Your task to perform on an android device: toggle notification dots Image 0: 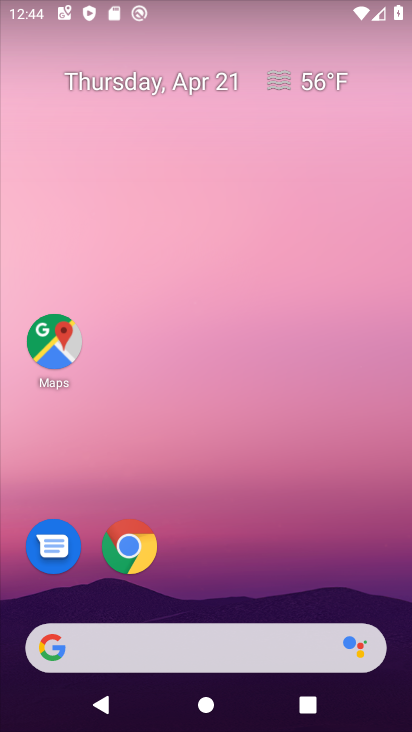
Step 0: drag from (204, 593) to (350, 110)
Your task to perform on an android device: toggle notification dots Image 1: 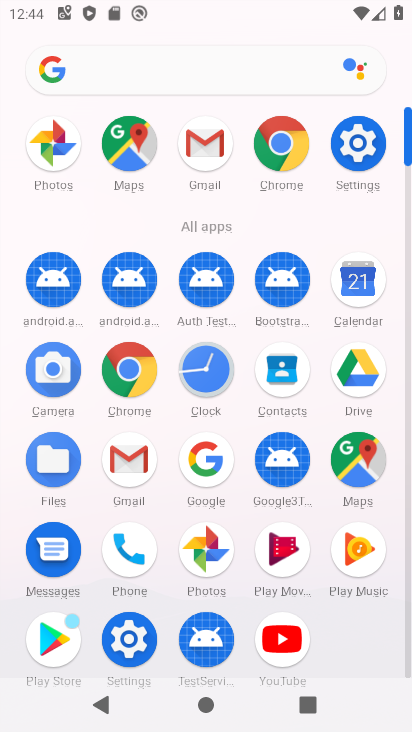
Step 1: click (364, 157)
Your task to perform on an android device: toggle notification dots Image 2: 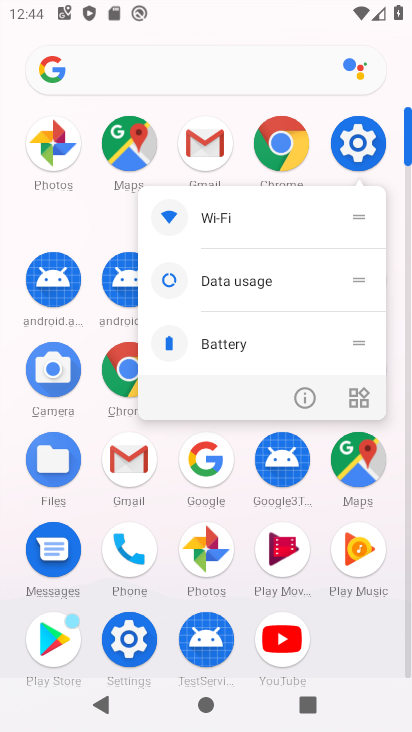
Step 2: click (364, 151)
Your task to perform on an android device: toggle notification dots Image 3: 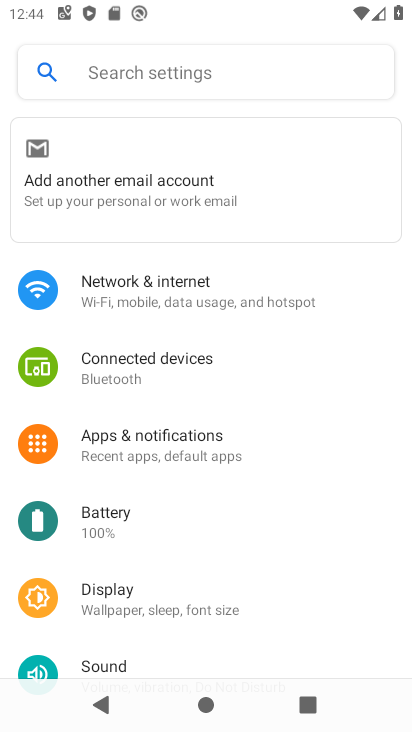
Step 3: click (180, 439)
Your task to perform on an android device: toggle notification dots Image 4: 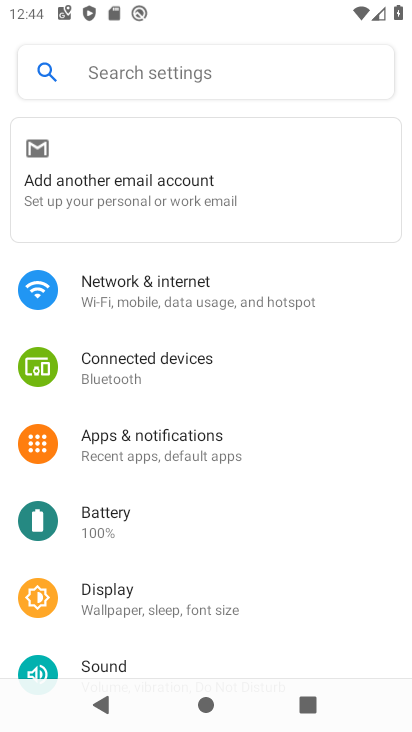
Step 4: click (180, 435)
Your task to perform on an android device: toggle notification dots Image 5: 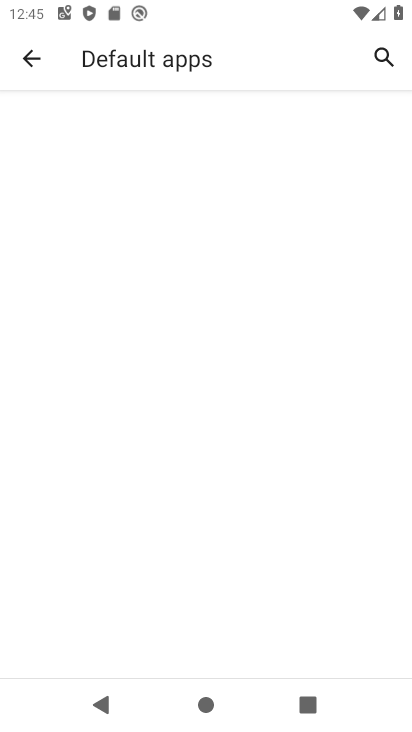
Step 5: click (160, 392)
Your task to perform on an android device: toggle notification dots Image 6: 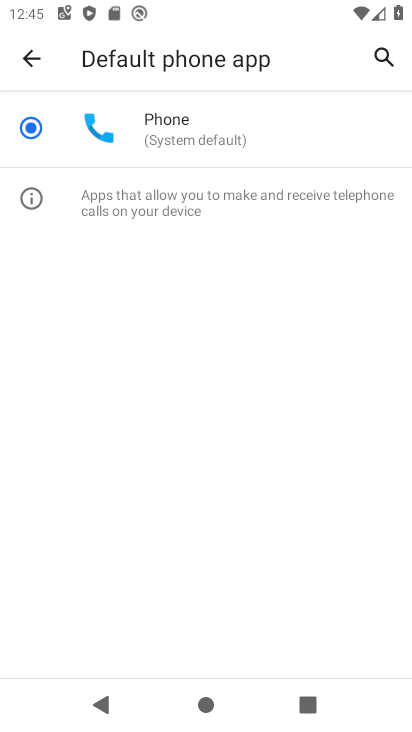
Step 6: click (35, 49)
Your task to perform on an android device: toggle notification dots Image 7: 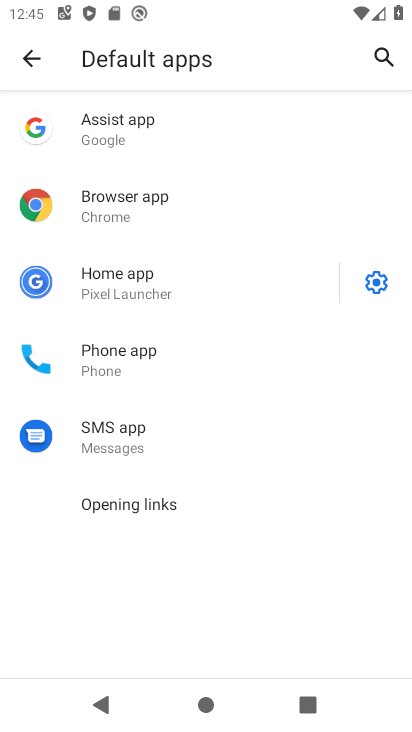
Step 7: click (35, 50)
Your task to perform on an android device: toggle notification dots Image 8: 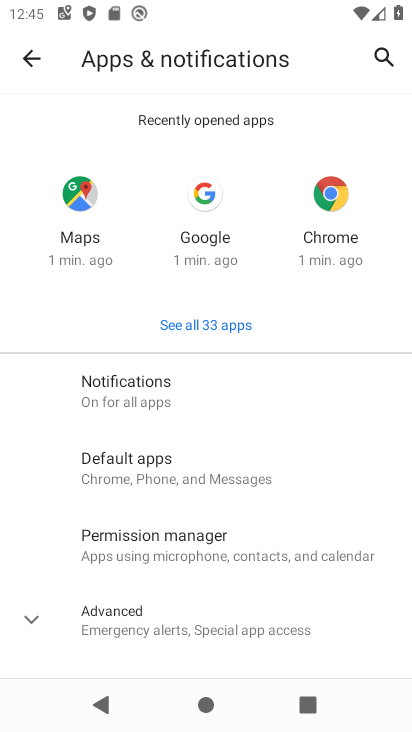
Step 8: click (121, 388)
Your task to perform on an android device: toggle notification dots Image 9: 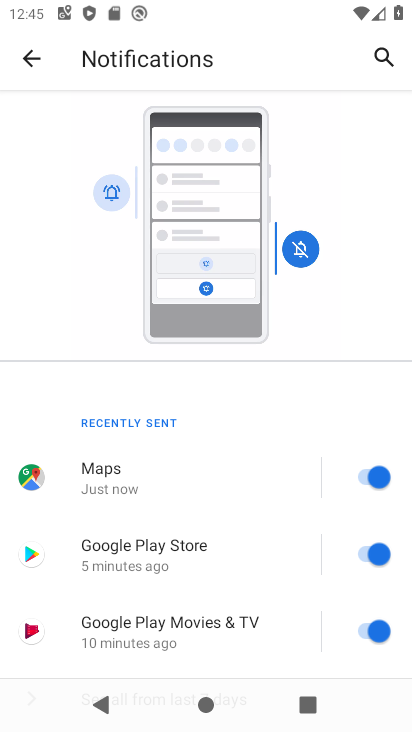
Step 9: drag from (239, 543) to (358, 76)
Your task to perform on an android device: toggle notification dots Image 10: 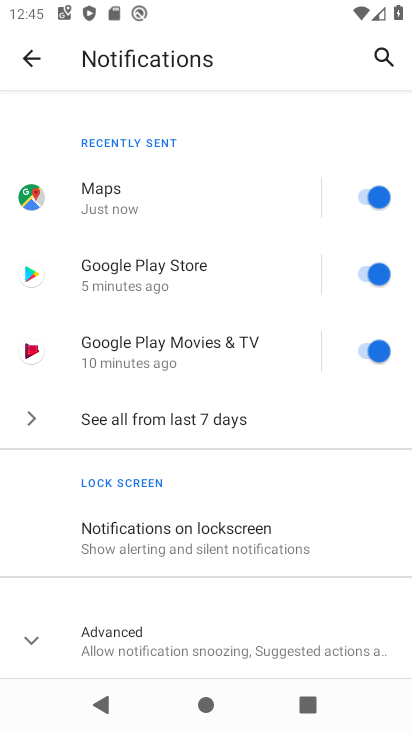
Step 10: drag from (234, 603) to (320, 268)
Your task to perform on an android device: toggle notification dots Image 11: 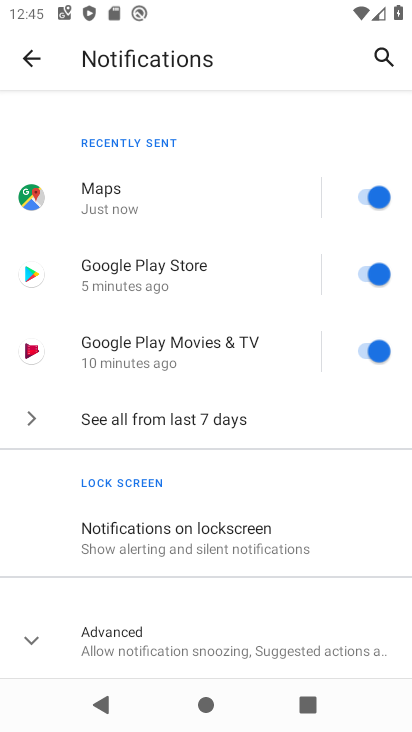
Step 11: click (195, 632)
Your task to perform on an android device: toggle notification dots Image 12: 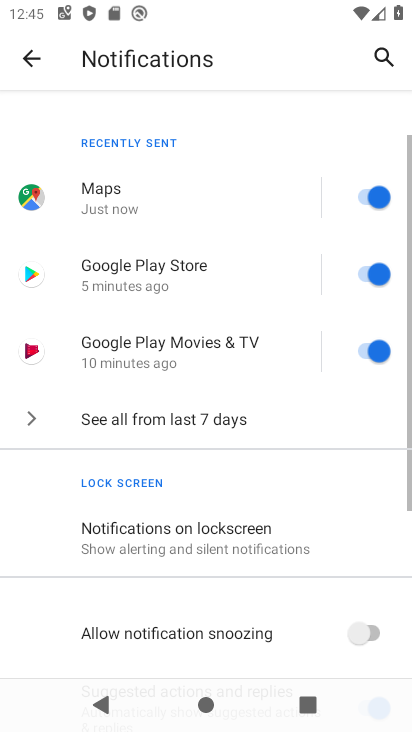
Step 12: drag from (195, 596) to (278, 251)
Your task to perform on an android device: toggle notification dots Image 13: 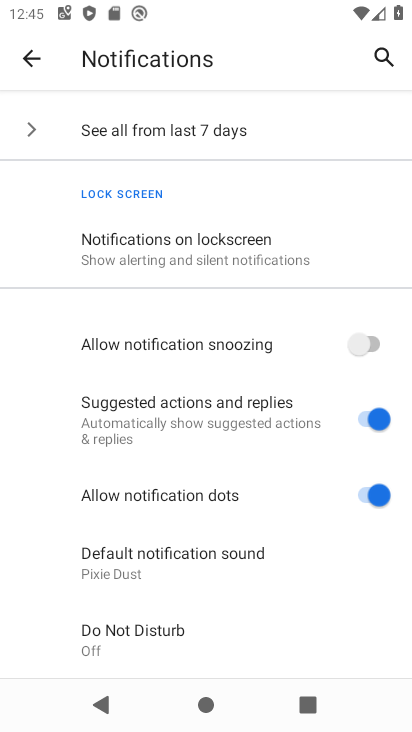
Step 13: click (365, 495)
Your task to perform on an android device: toggle notification dots Image 14: 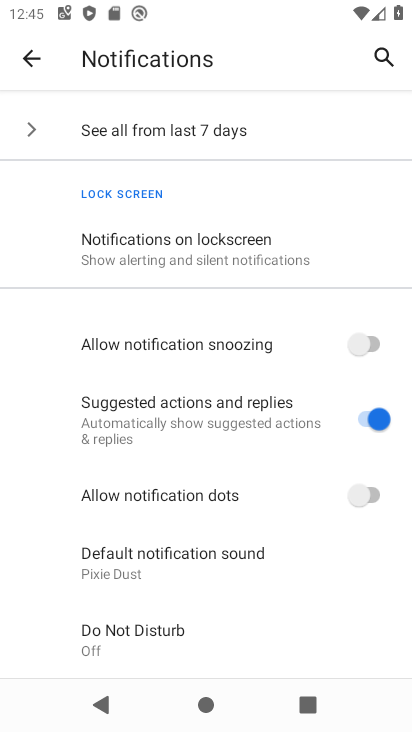
Step 14: task complete